Your task to perform on an android device: add a contact in the contacts app Image 0: 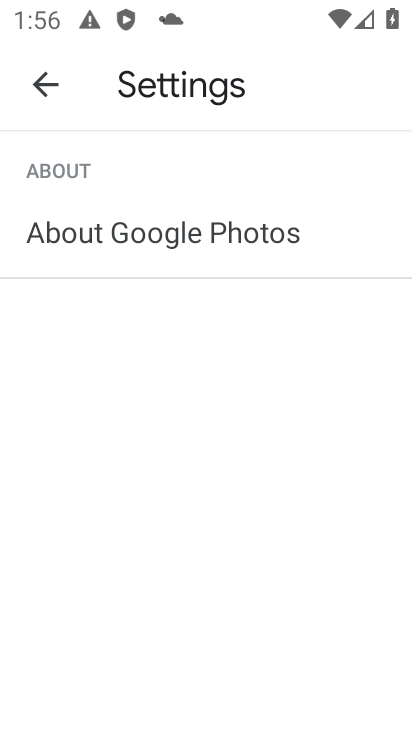
Step 0: press home button
Your task to perform on an android device: add a contact in the contacts app Image 1: 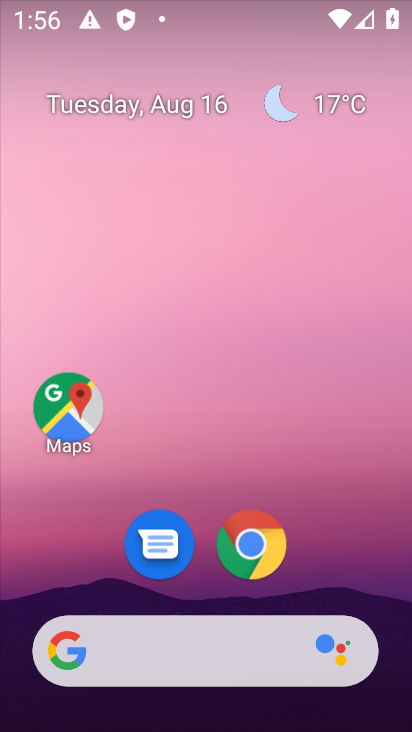
Step 1: drag from (171, 649) to (163, 20)
Your task to perform on an android device: add a contact in the contacts app Image 2: 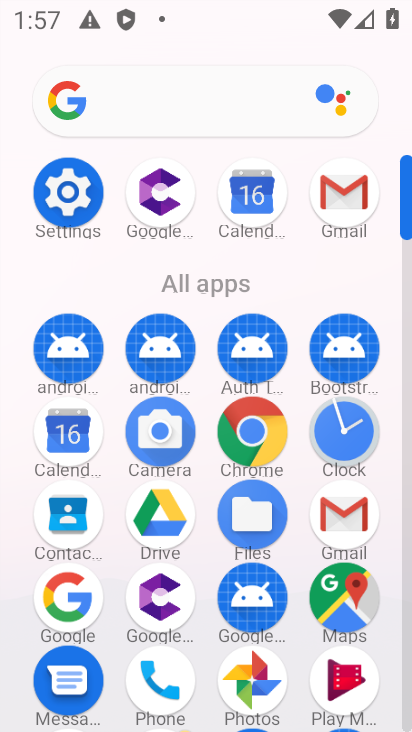
Step 2: click (67, 518)
Your task to perform on an android device: add a contact in the contacts app Image 3: 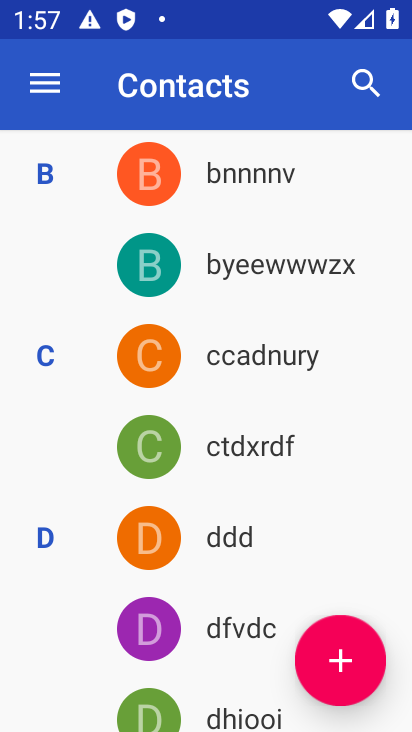
Step 3: click (344, 664)
Your task to perform on an android device: add a contact in the contacts app Image 4: 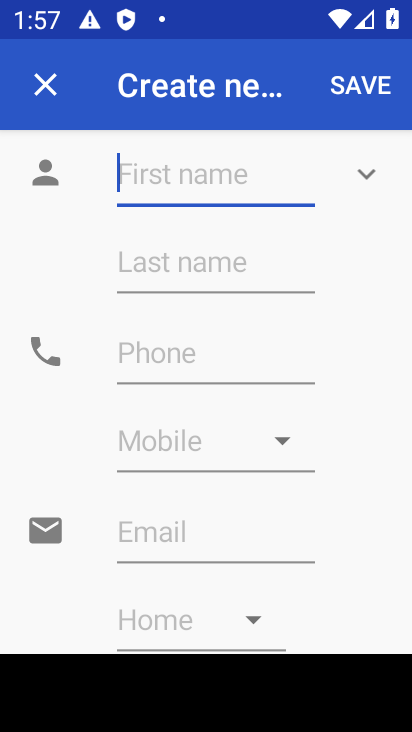
Step 4: type "Deepali"
Your task to perform on an android device: add a contact in the contacts app Image 5: 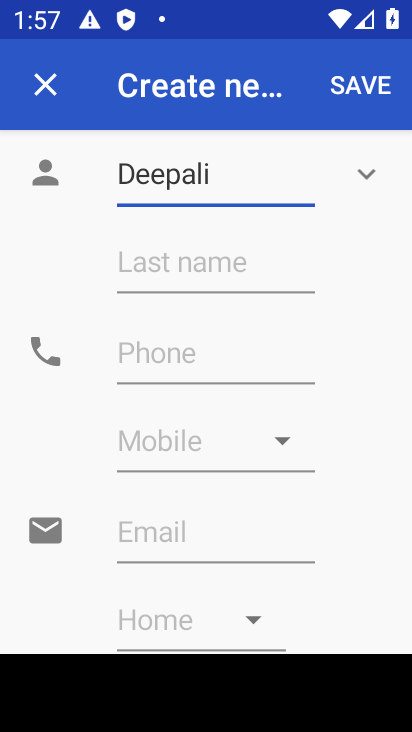
Step 5: click (211, 253)
Your task to perform on an android device: add a contact in the contacts app Image 6: 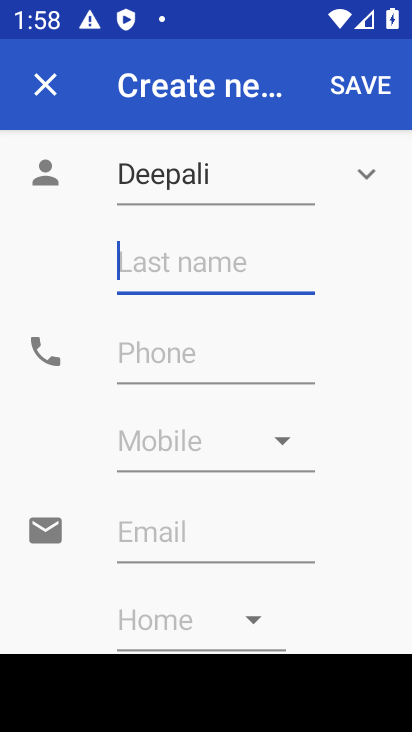
Step 6: type "Somukar"
Your task to perform on an android device: add a contact in the contacts app Image 7: 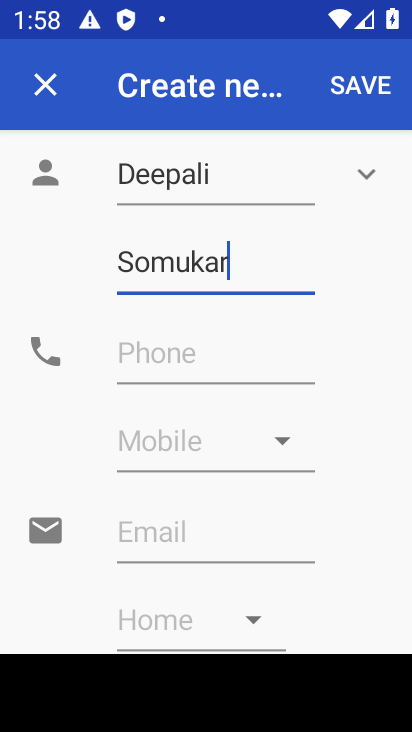
Step 7: click (212, 371)
Your task to perform on an android device: add a contact in the contacts app Image 8: 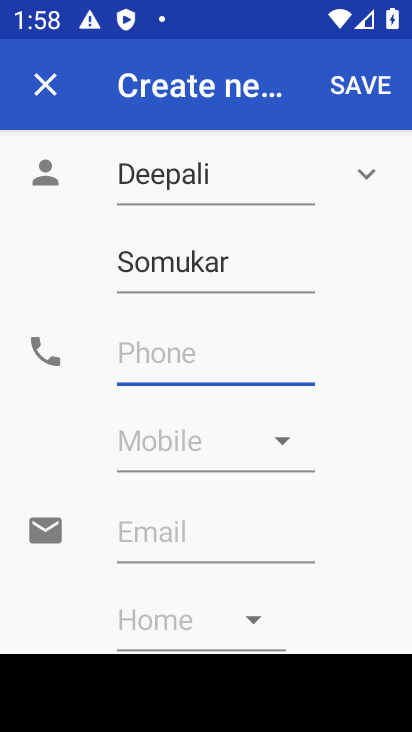
Step 8: type "0987612345"
Your task to perform on an android device: add a contact in the contacts app Image 9: 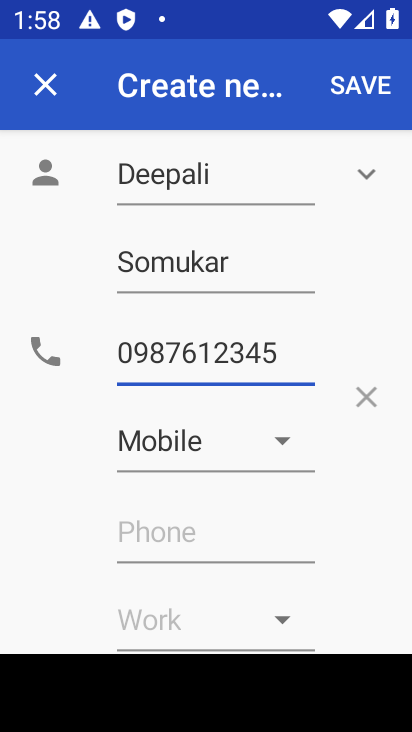
Step 9: click (374, 88)
Your task to perform on an android device: add a contact in the contacts app Image 10: 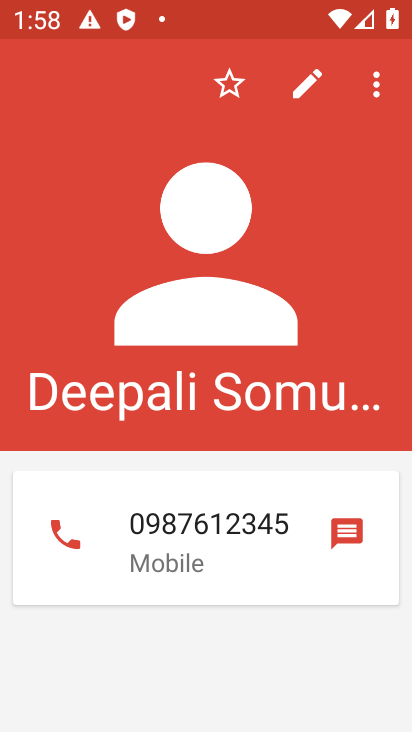
Step 10: task complete